Your task to perform on an android device: Open Android settings Image 0: 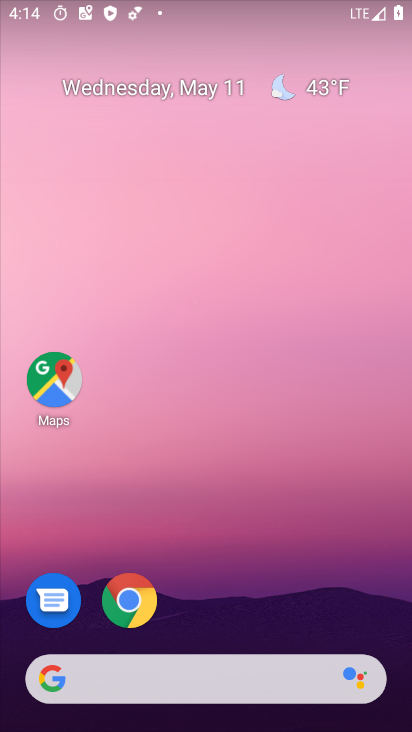
Step 0: drag from (331, 611) to (372, 0)
Your task to perform on an android device: Open Android settings Image 1: 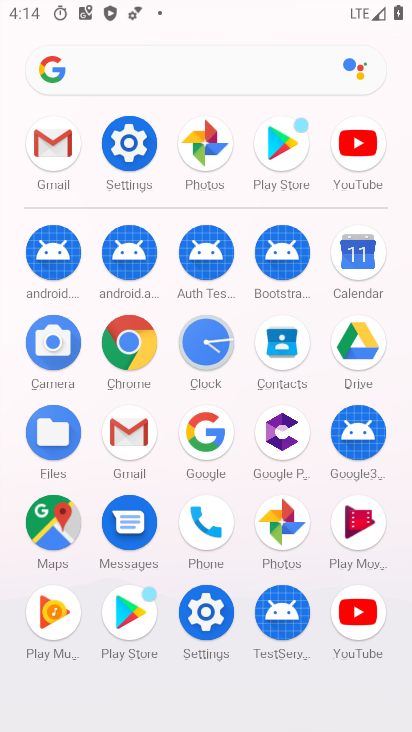
Step 1: click (127, 151)
Your task to perform on an android device: Open Android settings Image 2: 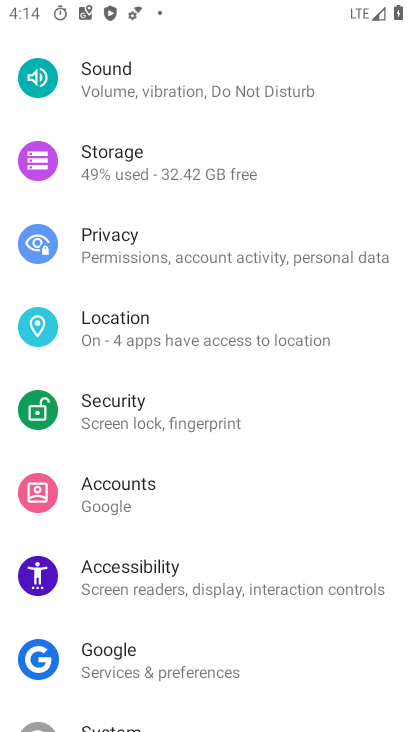
Step 2: drag from (341, 663) to (354, 77)
Your task to perform on an android device: Open Android settings Image 3: 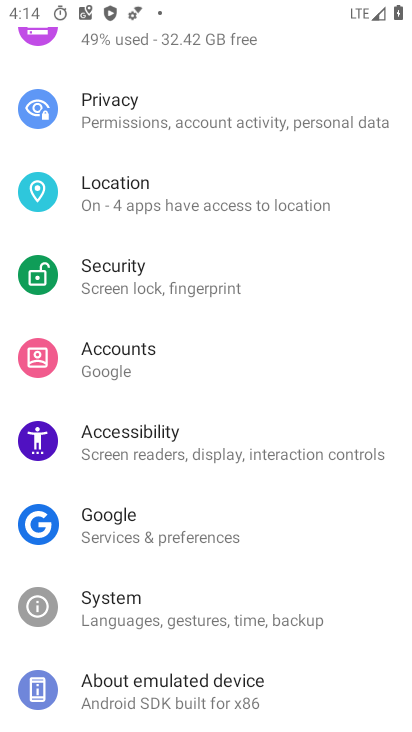
Step 3: click (156, 695)
Your task to perform on an android device: Open Android settings Image 4: 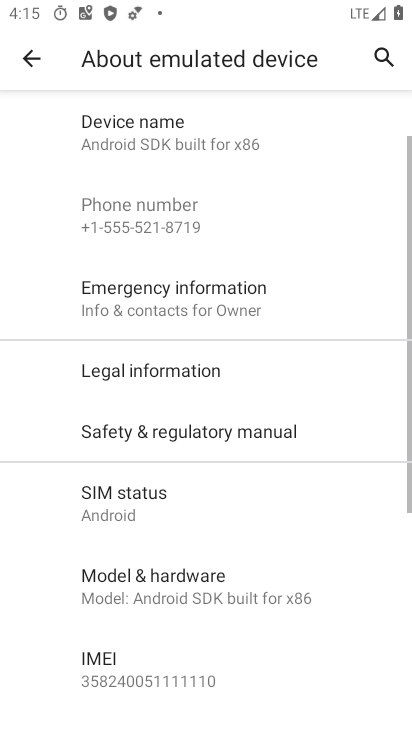
Step 4: drag from (241, 647) to (261, 260)
Your task to perform on an android device: Open Android settings Image 5: 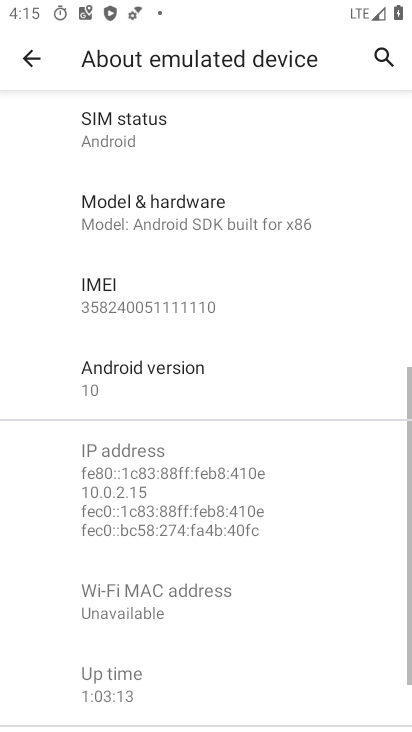
Step 5: click (146, 365)
Your task to perform on an android device: Open Android settings Image 6: 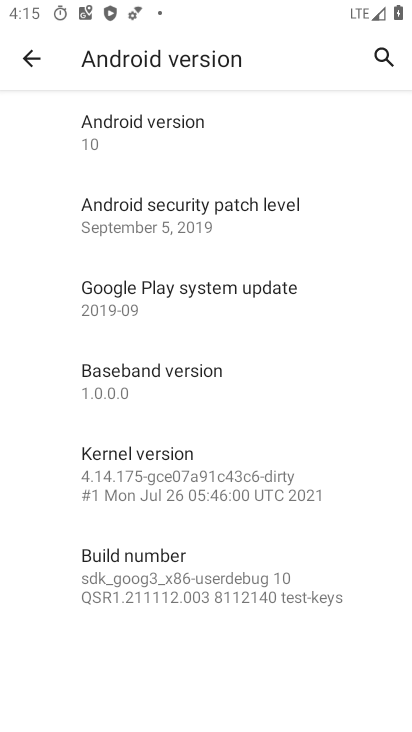
Step 6: task complete